Your task to perform on an android device: Search for pizza restaurants on Maps Image 0: 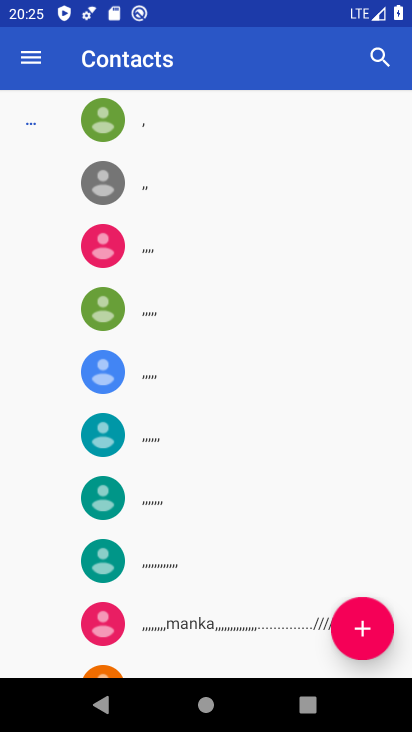
Step 0: press back button
Your task to perform on an android device: Search for pizza restaurants on Maps Image 1: 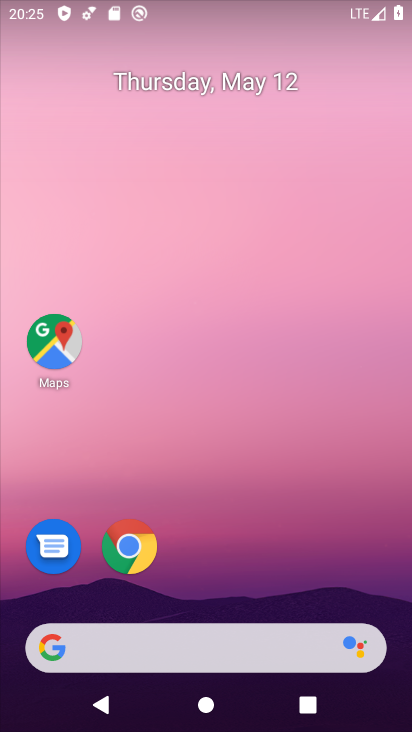
Step 1: click (48, 332)
Your task to perform on an android device: Search for pizza restaurants on Maps Image 2: 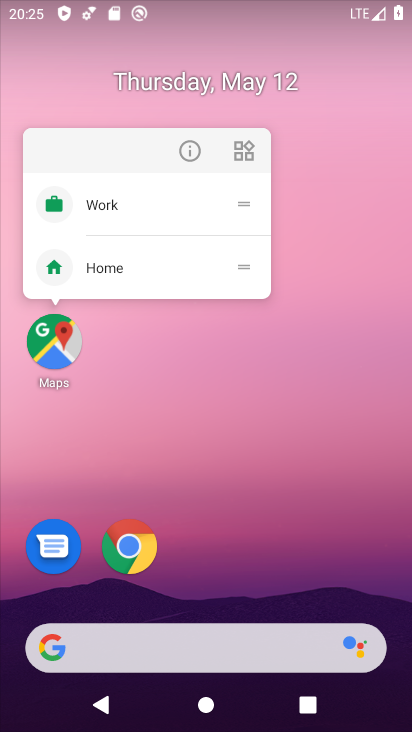
Step 2: click (48, 332)
Your task to perform on an android device: Search for pizza restaurants on Maps Image 3: 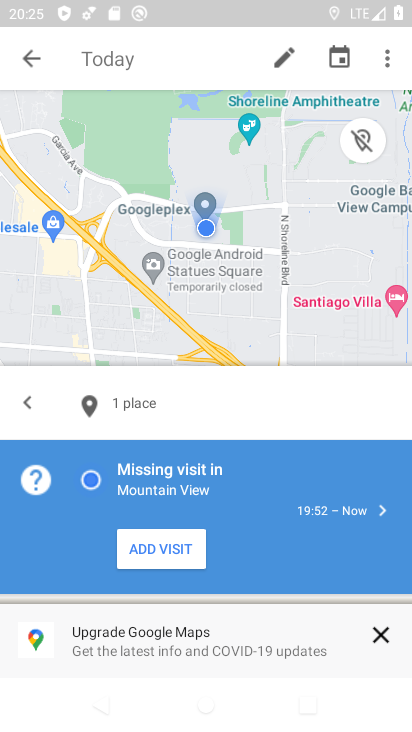
Step 3: click (28, 56)
Your task to perform on an android device: Search for pizza restaurants on Maps Image 4: 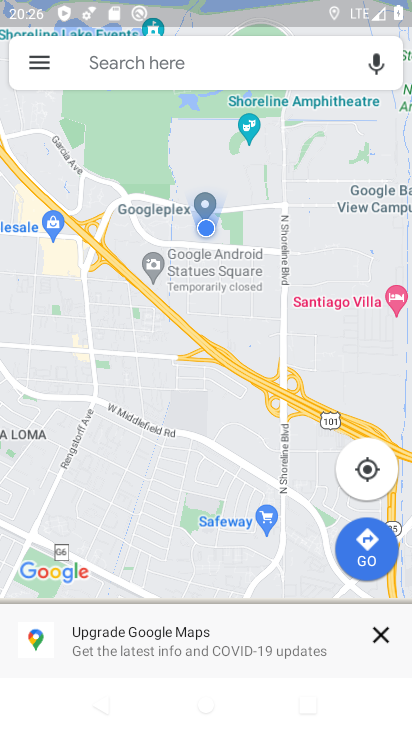
Step 4: click (152, 76)
Your task to perform on an android device: Search for pizza restaurants on Maps Image 5: 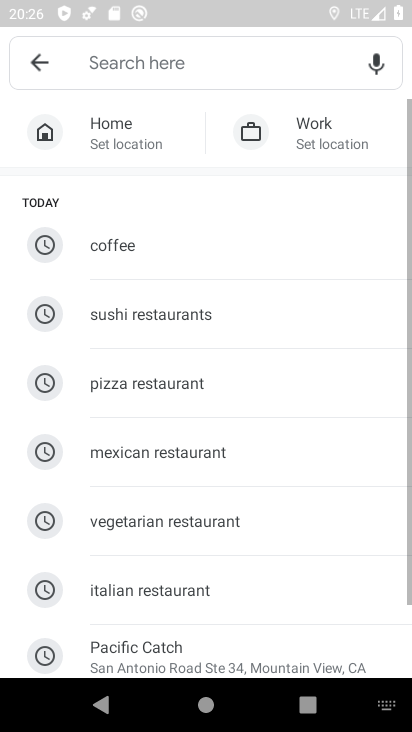
Step 5: click (120, 390)
Your task to perform on an android device: Search for pizza restaurants on Maps Image 6: 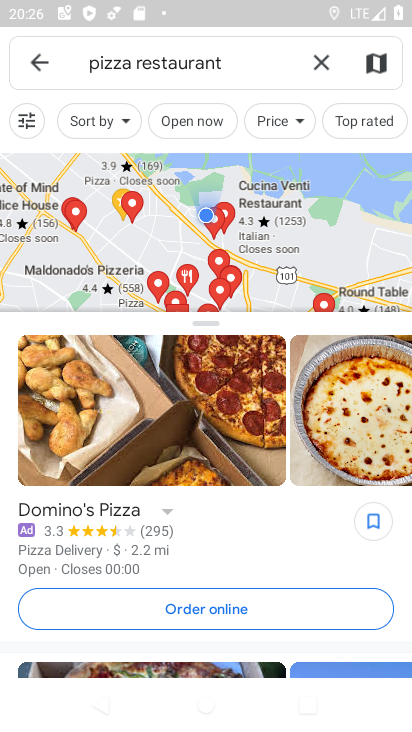
Step 6: task complete